Your task to perform on an android device: toggle priority inbox in the gmail app Image 0: 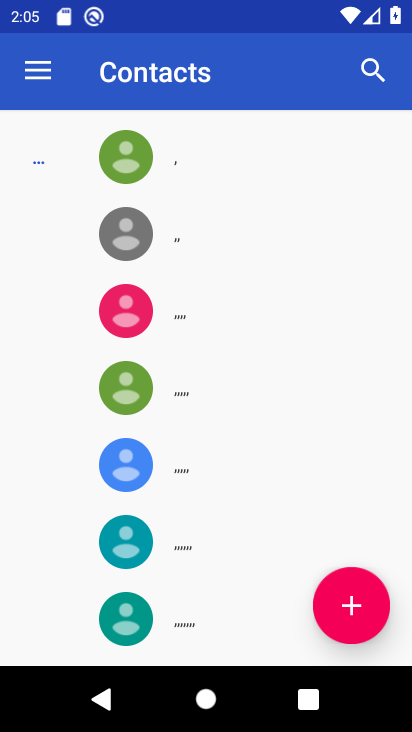
Step 0: press home button
Your task to perform on an android device: toggle priority inbox in the gmail app Image 1: 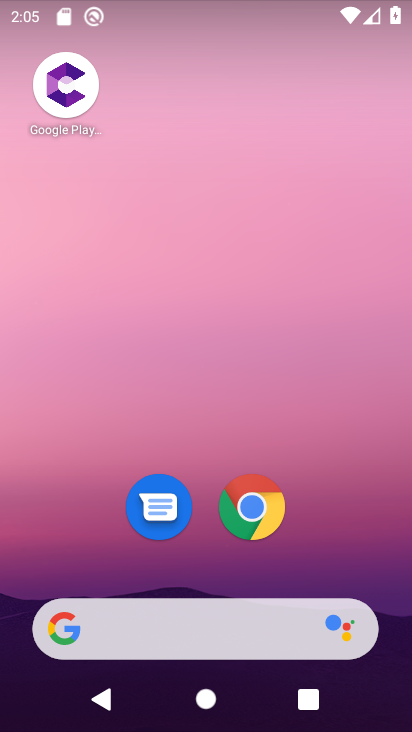
Step 1: drag from (204, 550) to (249, 230)
Your task to perform on an android device: toggle priority inbox in the gmail app Image 2: 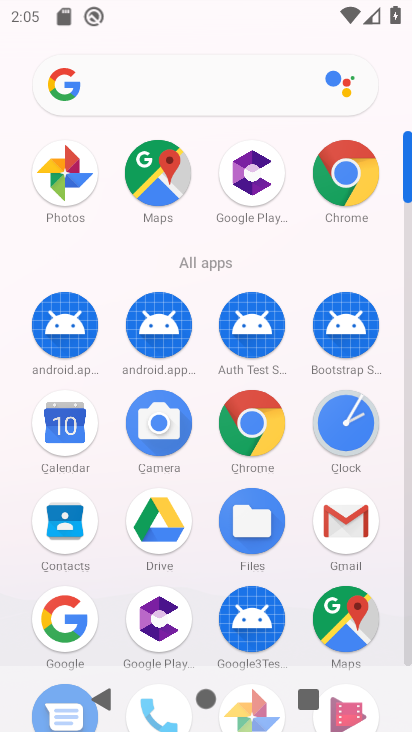
Step 2: click (334, 525)
Your task to perform on an android device: toggle priority inbox in the gmail app Image 3: 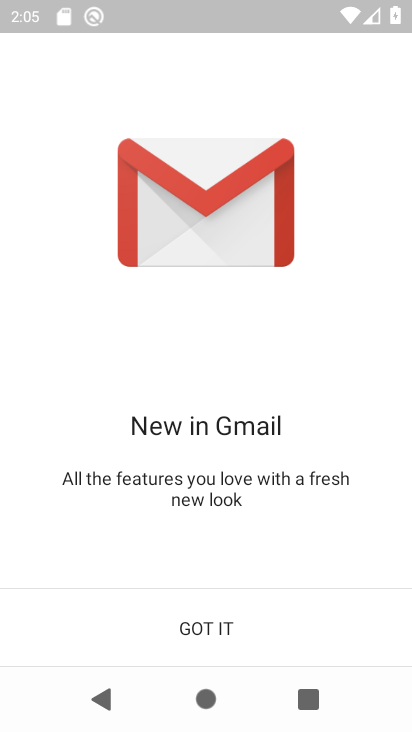
Step 3: click (212, 624)
Your task to perform on an android device: toggle priority inbox in the gmail app Image 4: 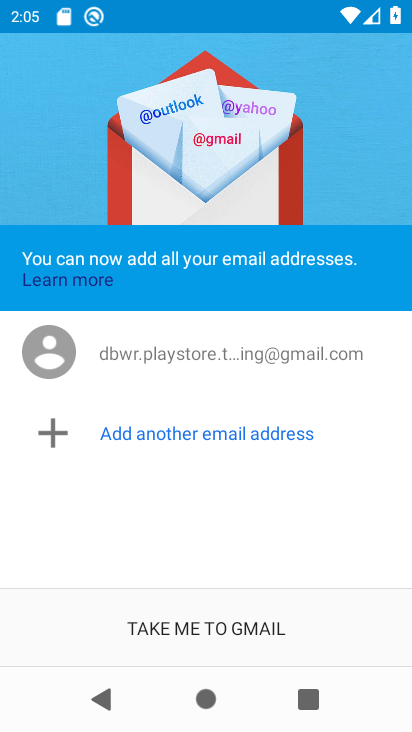
Step 4: click (223, 626)
Your task to perform on an android device: toggle priority inbox in the gmail app Image 5: 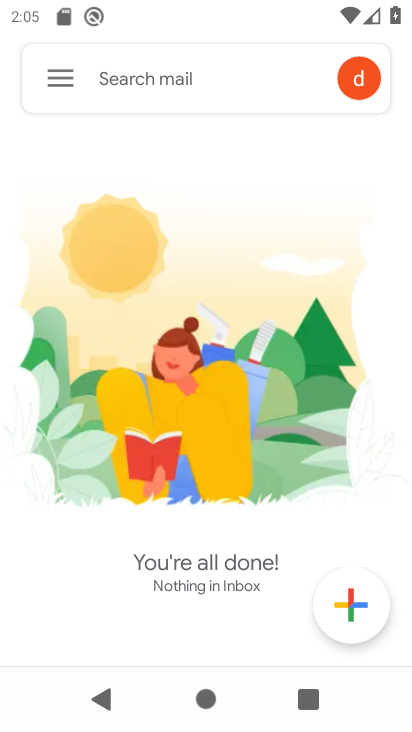
Step 5: click (60, 84)
Your task to perform on an android device: toggle priority inbox in the gmail app Image 6: 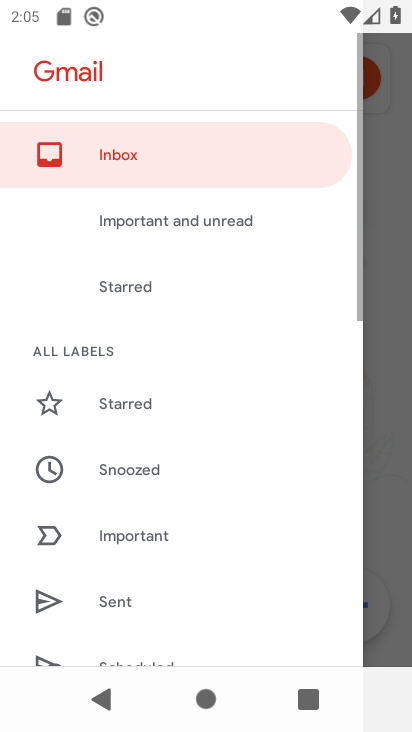
Step 6: drag from (156, 618) to (194, 246)
Your task to perform on an android device: toggle priority inbox in the gmail app Image 7: 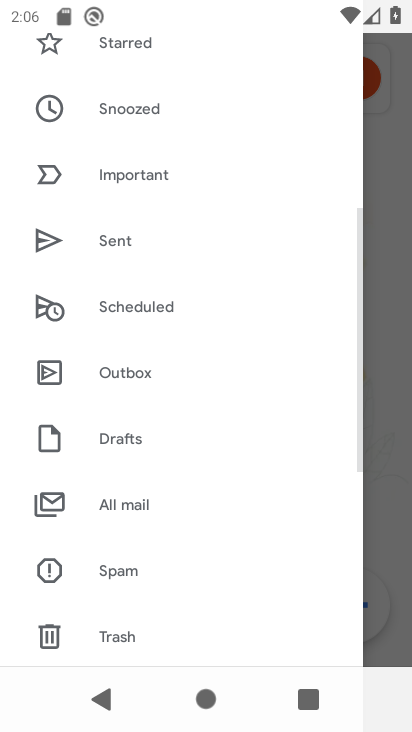
Step 7: drag from (164, 612) to (196, 289)
Your task to perform on an android device: toggle priority inbox in the gmail app Image 8: 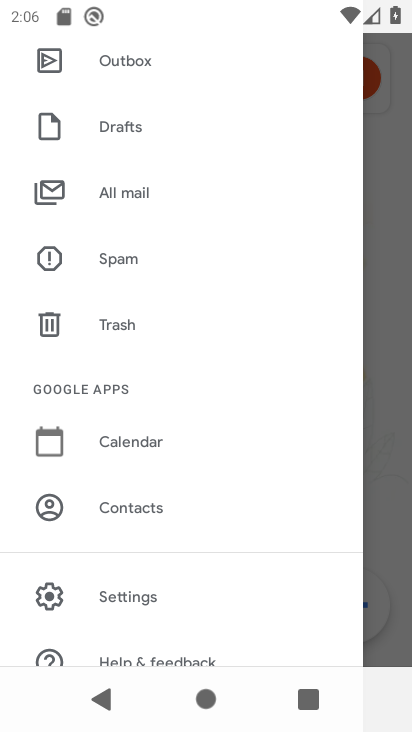
Step 8: click (135, 594)
Your task to perform on an android device: toggle priority inbox in the gmail app Image 9: 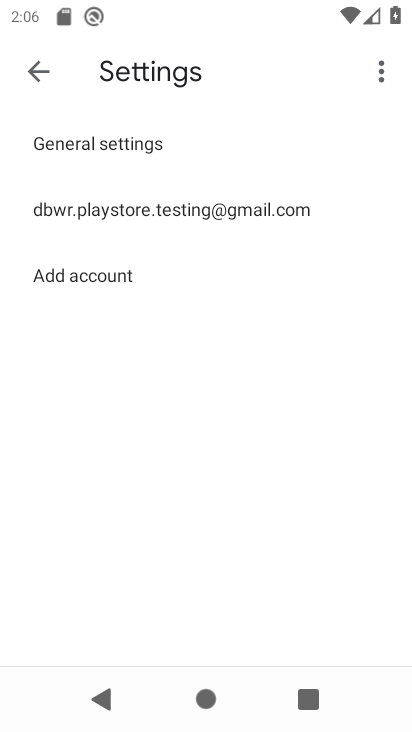
Step 9: click (132, 212)
Your task to perform on an android device: toggle priority inbox in the gmail app Image 10: 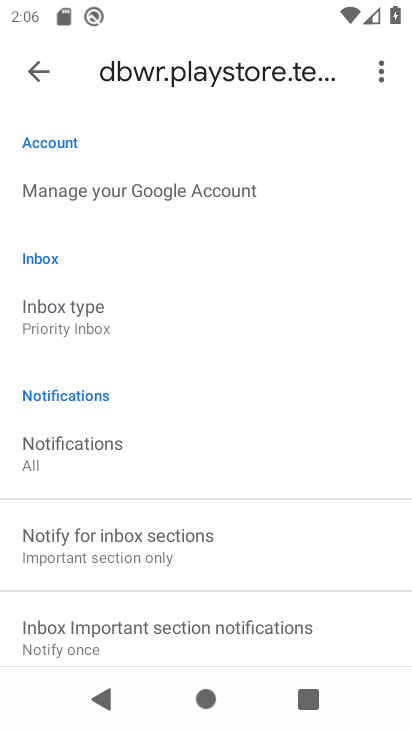
Step 10: click (112, 327)
Your task to perform on an android device: toggle priority inbox in the gmail app Image 11: 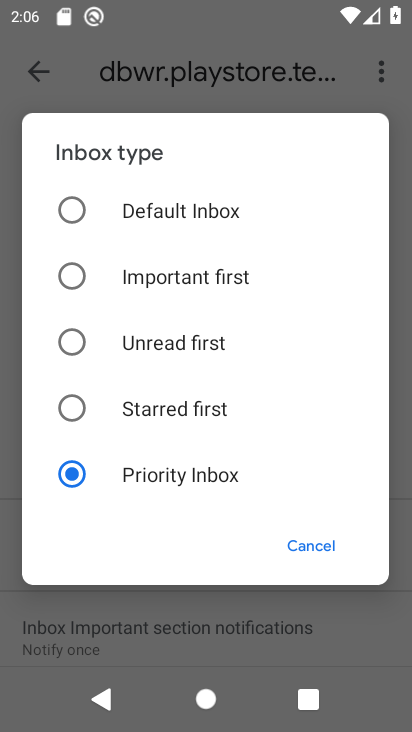
Step 11: task complete